Your task to perform on an android device: Open eBay Image 0: 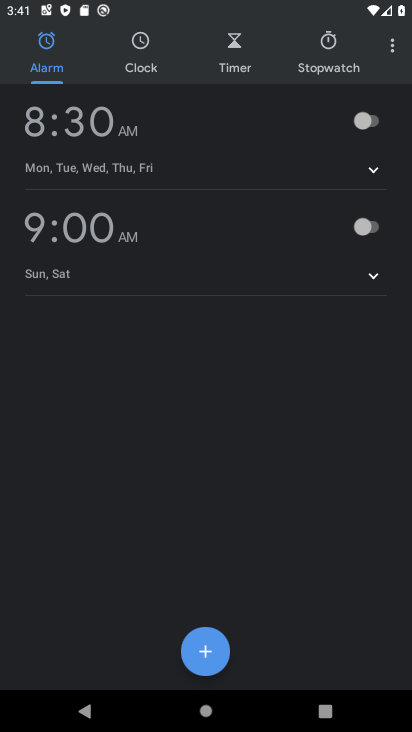
Step 0: press home button
Your task to perform on an android device: Open eBay Image 1: 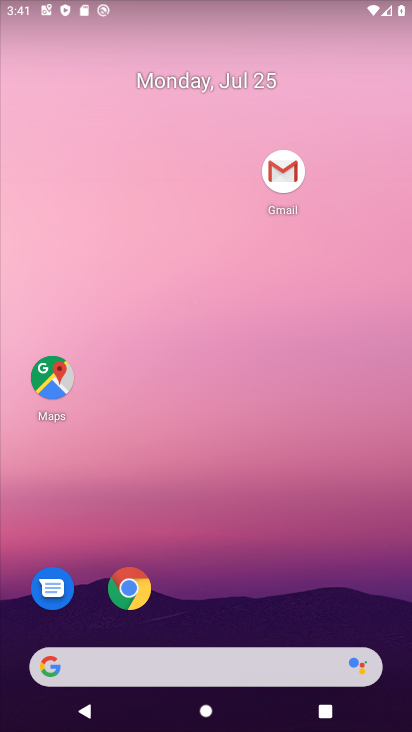
Step 1: drag from (244, 534) to (145, 7)
Your task to perform on an android device: Open eBay Image 2: 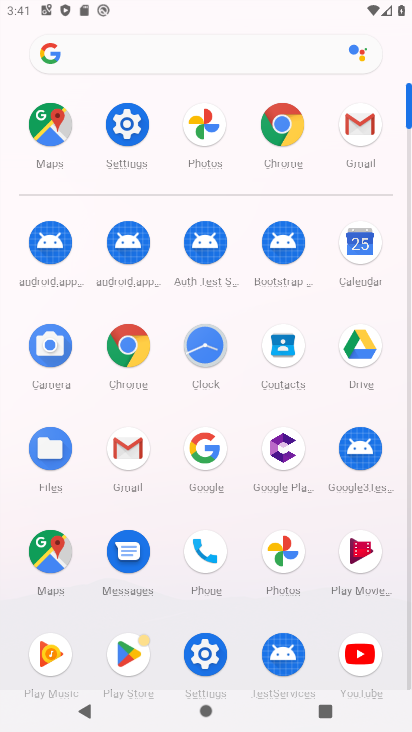
Step 2: click (289, 122)
Your task to perform on an android device: Open eBay Image 3: 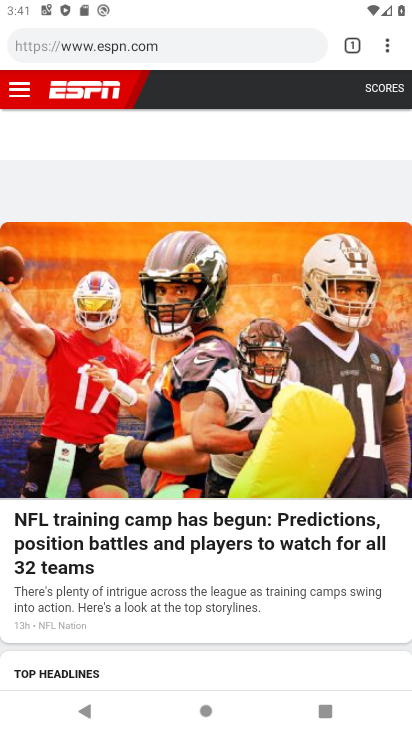
Step 3: click (262, 42)
Your task to perform on an android device: Open eBay Image 4: 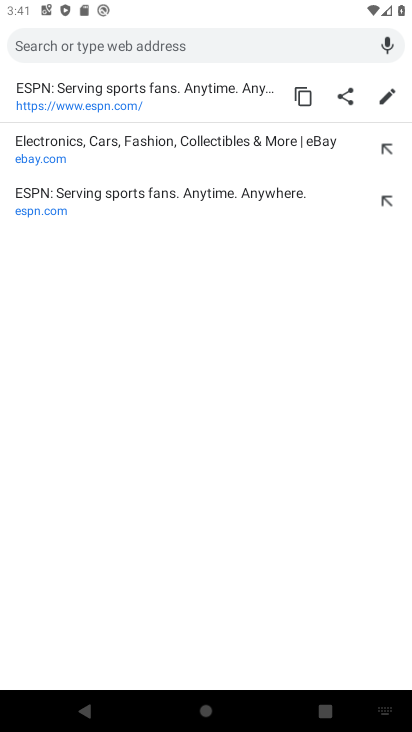
Step 4: type "ebay"
Your task to perform on an android device: Open eBay Image 5: 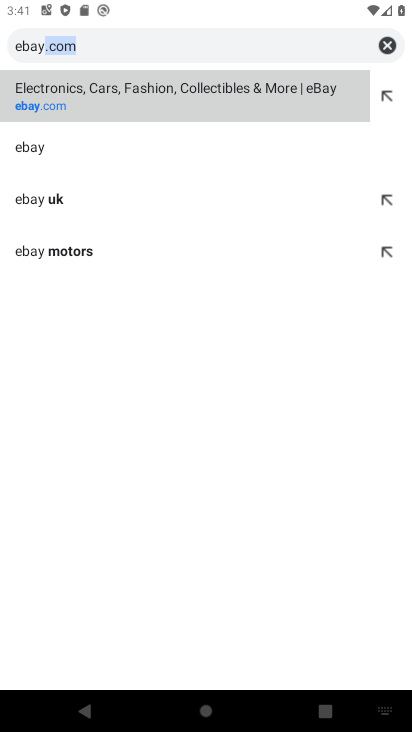
Step 5: click (157, 100)
Your task to perform on an android device: Open eBay Image 6: 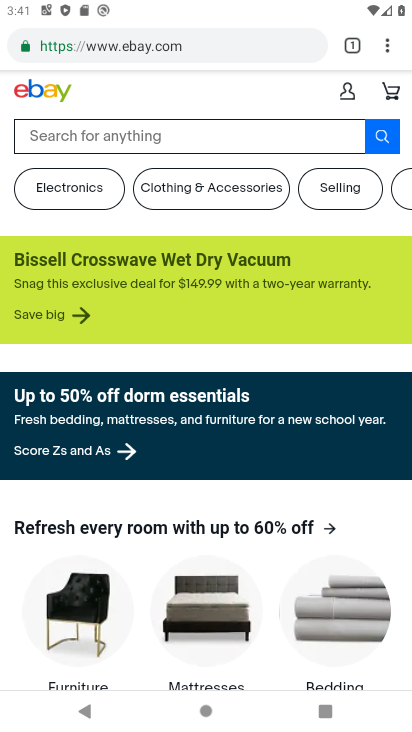
Step 6: task complete